Your task to perform on an android device: What's on my calendar tomorrow? Image 0: 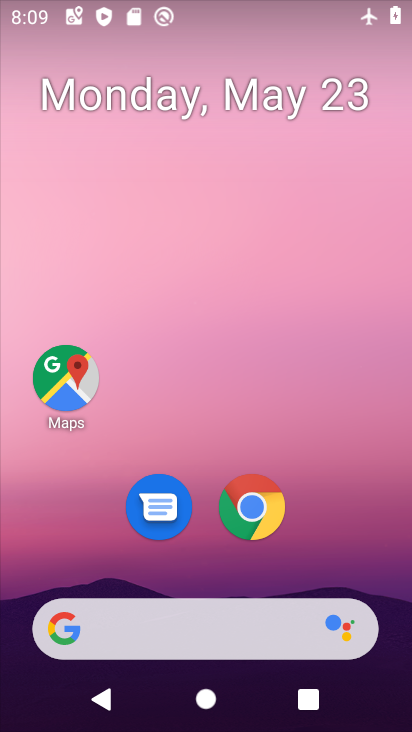
Step 0: drag from (347, 534) to (315, 175)
Your task to perform on an android device: What's on my calendar tomorrow? Image 1: 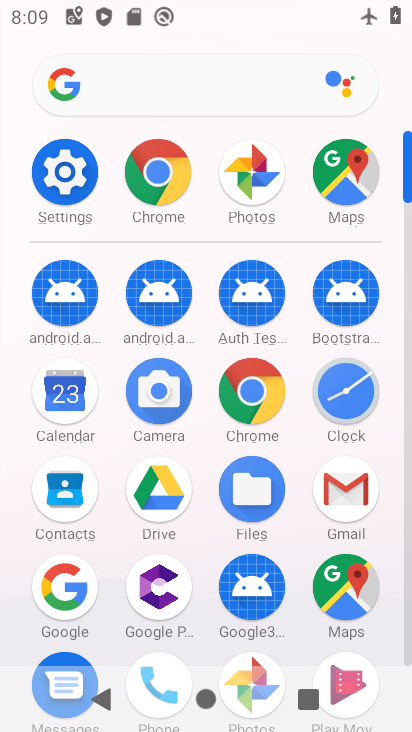
Step 1: click (46, 395)
Your task to perform on an android device: What's on my calendar tomorrow? Image 2: 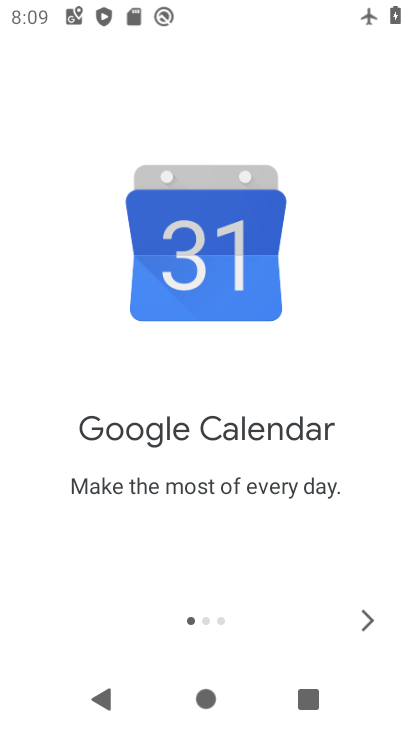
Step 2: click (363, 620)
Your task to perform on an android device: What's on my calendar tomorrow? Image 3: 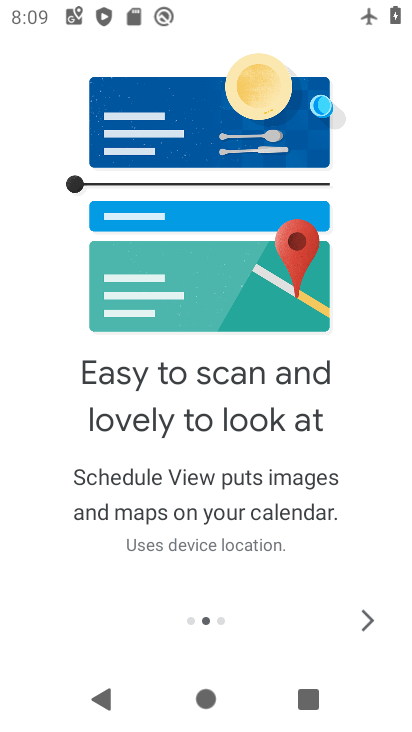
Step 3: click (363, 616)
Your task to perform on an android device: What's on my calendar tomorrow? Image 4: 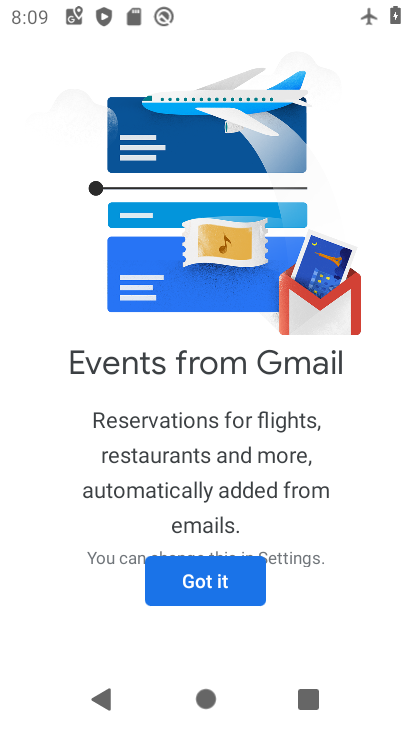
Step 4: click (360, 612)
Your task to perform on an android device: What's on my calendar tomorrow? Image 5: 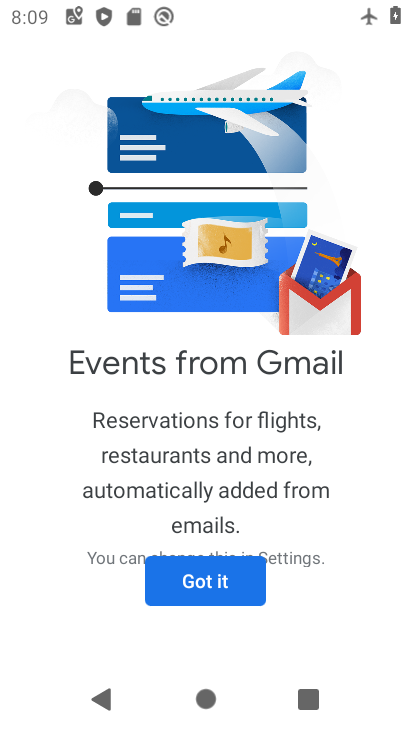
Step 5: click (223, 581)
Your task to perform on an android device: What's on my calendar tomorrow? Image 6: 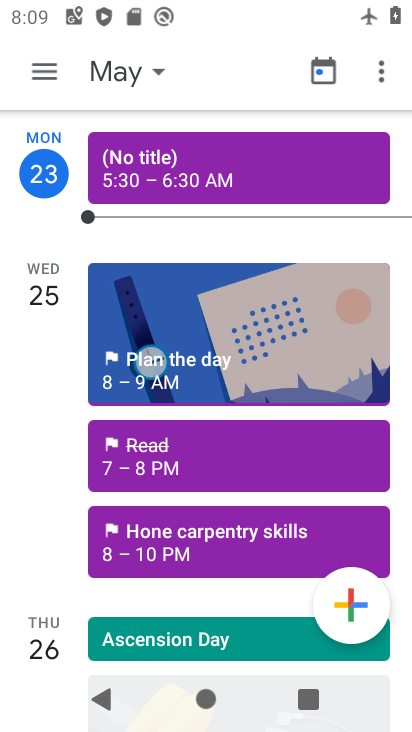
Step 6: click (118, 73)
Your task to perform on an android device: What's on my calendar tomorrow? Image 7: 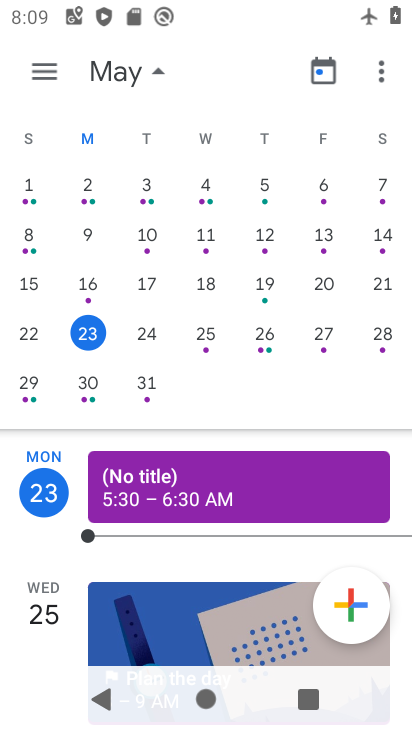
Step 7: click (147, 332)
Your task to perform on an android device: What's on my calendar tomorrow? Image 8: 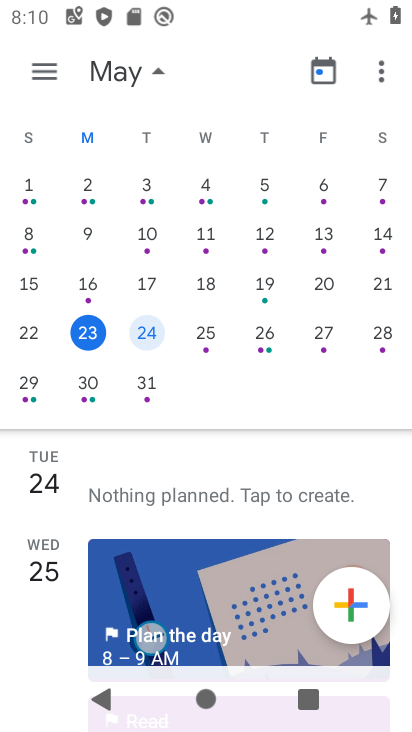
Step 8: task complete